Your task to perform on an android device: move a message to another label in the gmail app Image 0: 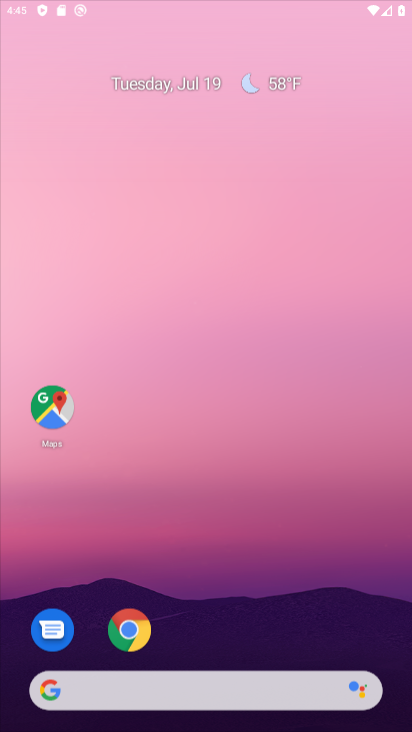
Step 0: click (182, 163)
Your task to perform on an android device: move a message to another label in the gmail app Image 1: 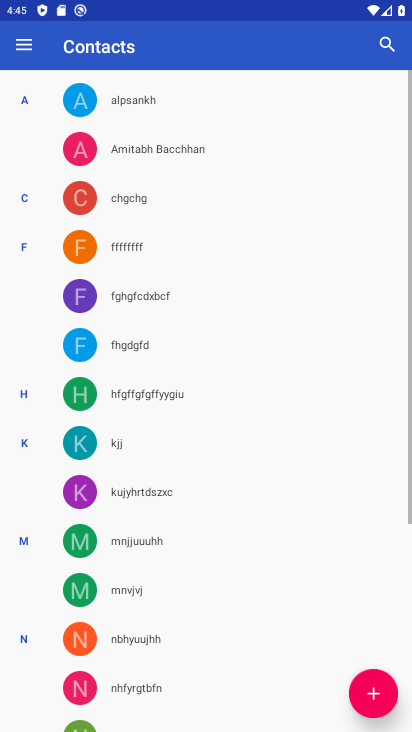
Step 1: drag from (198, 522) to (199, 157)
Your task to perform on an android device: move a message to another label in the gmail app Image 2: 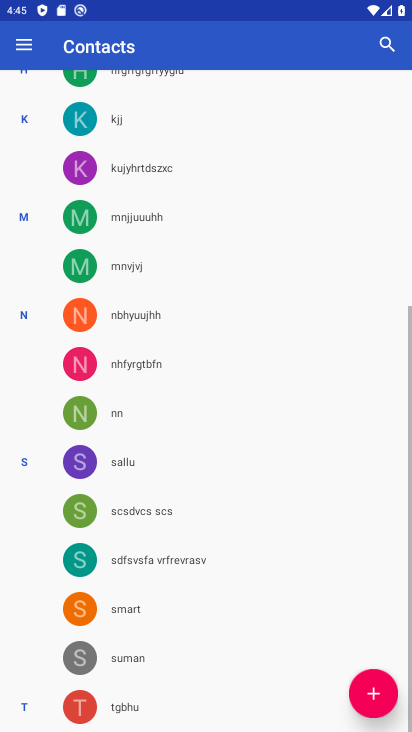
Step 2: press back button
Your task to perform on an android device: move a message to another label in the gmail app Image 3: 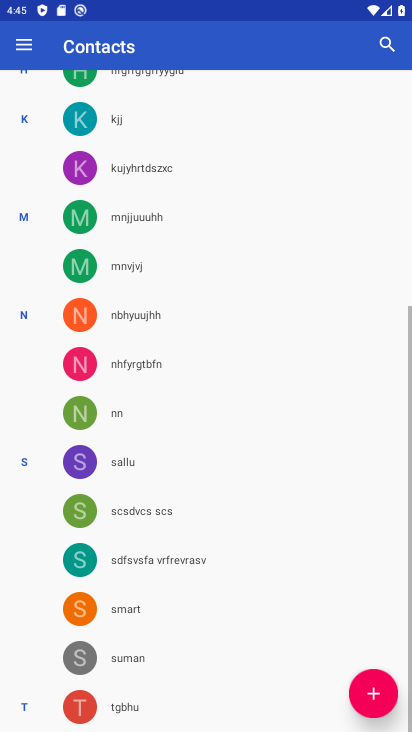
Step 3: press back button
Your task to perform on an android device: move a message to another label in the gmail app Image 4: 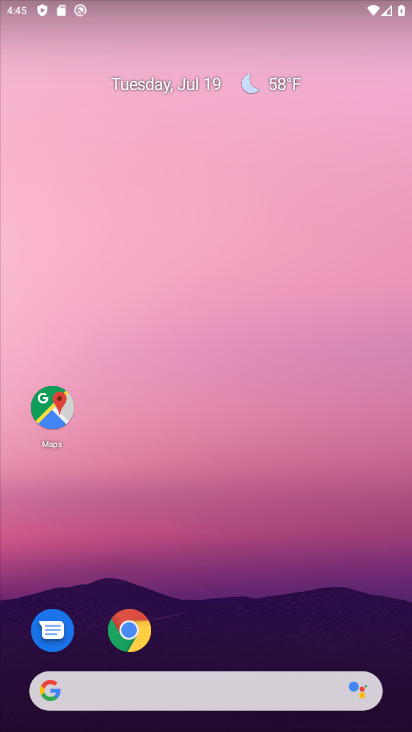
Step 4: drag from (224, 556) to (204, 107)
Your task to perform on an android device: move a message to another label in the gmail app Image 5: 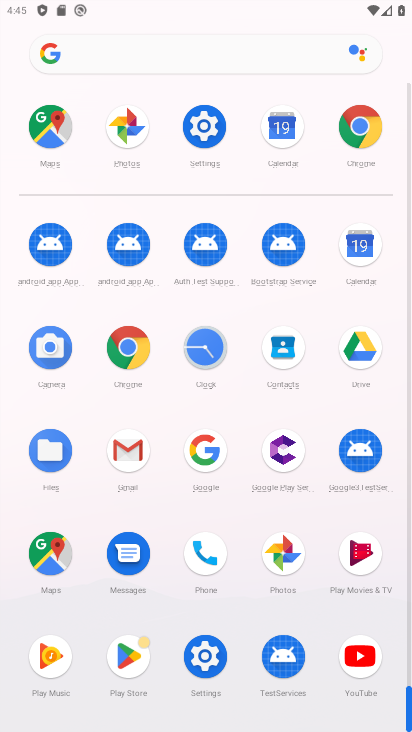
Step 5: click (121, 453)
Your task to perform on an android device: move a message to another label in the gmail app Image 6: 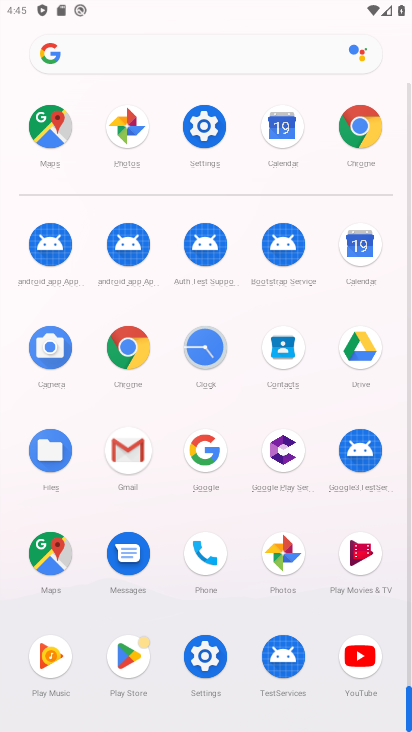
Step 6: click (120, 453)
Your task to perform on an android device: move a message to another label in the gmail app Image 7: 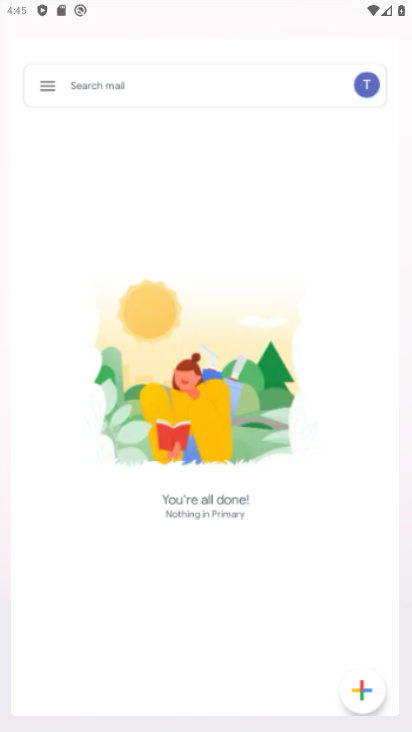
Step 7: click (120, 453)
Your task to perform on an android device: move a message to another label in the gmail app Image 8: 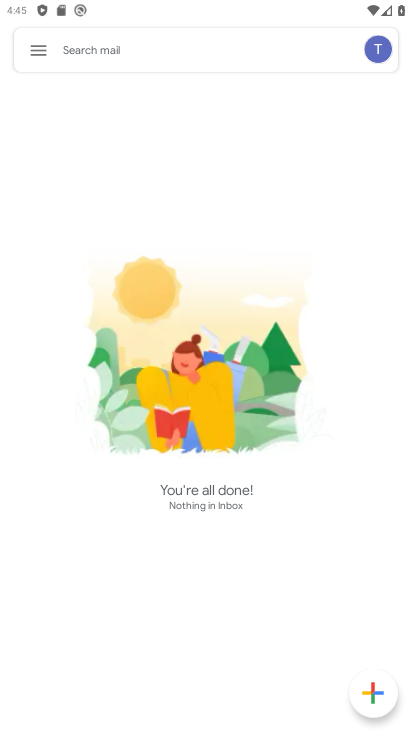
Step 8: click (42, 51)
Your task to perform on an android device: move a message to another label in the gmail app Image 9: 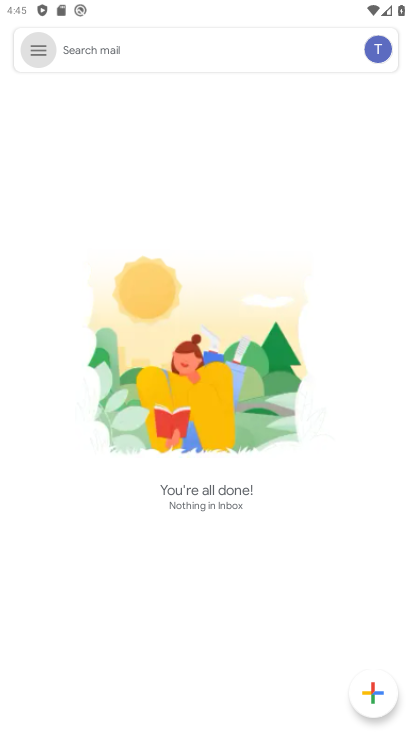
Step 9: click (42, 51)
Your task to perform on an android device: move a message to another label in the gmail app Image 10: 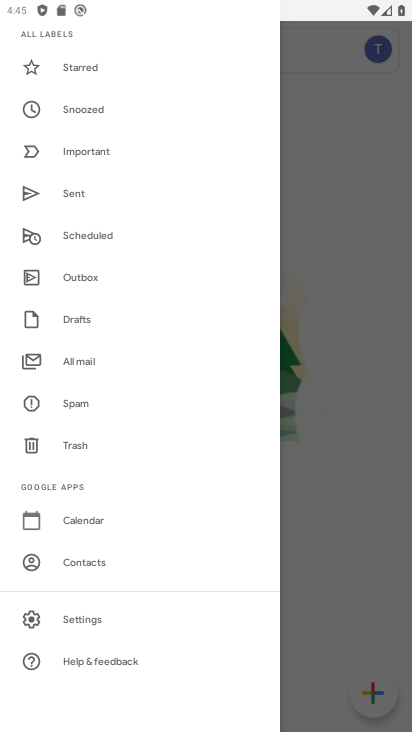
Step 10: click (74, 353)
Your task to perform on an android device: move a message to another label in the gmail app Image 11: 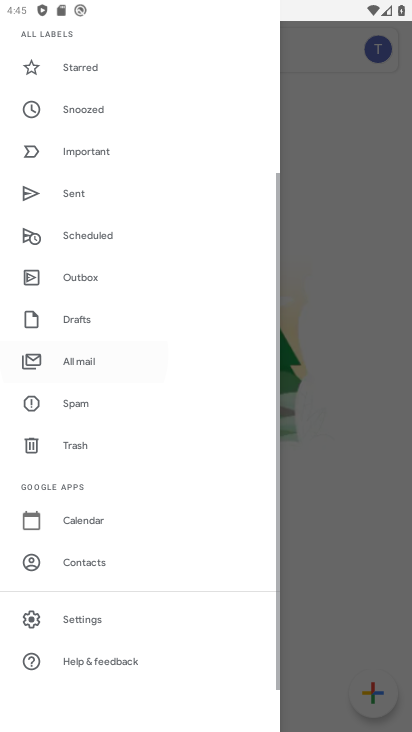
Step 11: click (74, 354)
Your task to perform on an android device: move a message to another label in the gmail app Image 12: 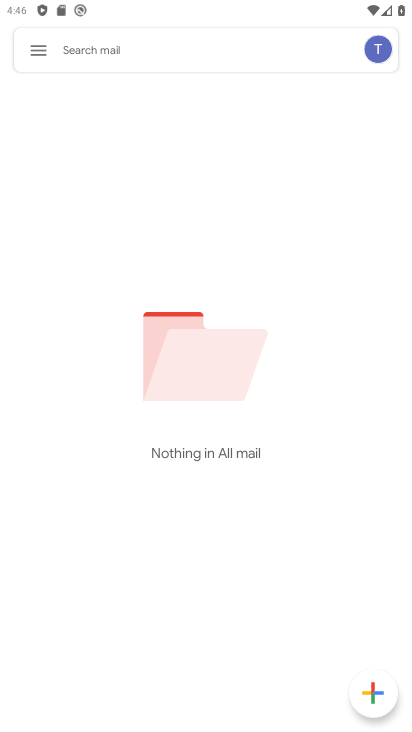
Step 12: task complete